Your task to perform on an android device: turn on location history Image 0: 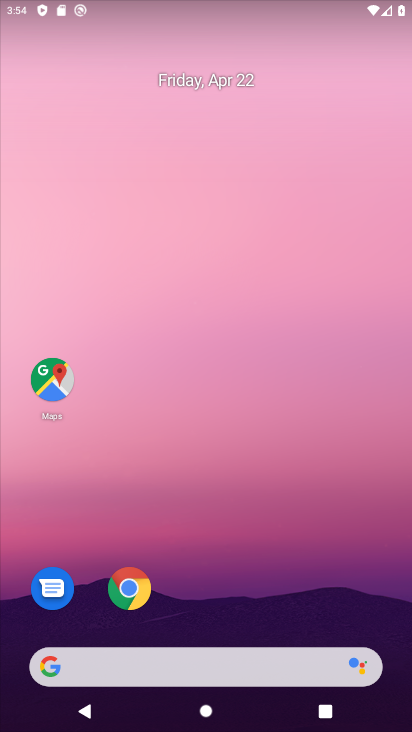
Step 0: drag from (214, 637) to (177, 70)
Your task to perform on an android device: turn on location history Image 1: 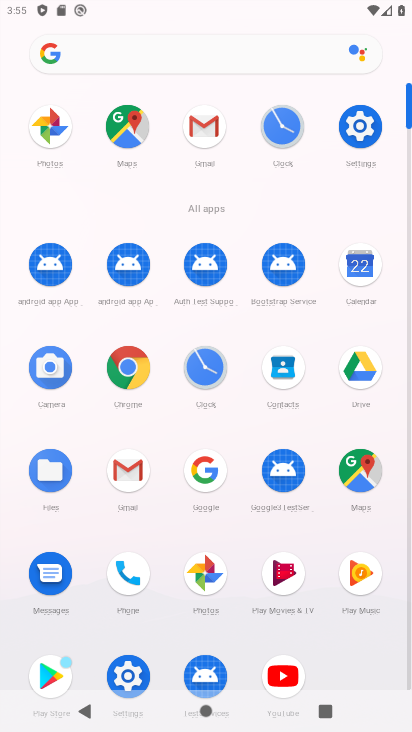
Step 1: click (353, 133)
Your task to perform on an android device: turn on location history Image 2: 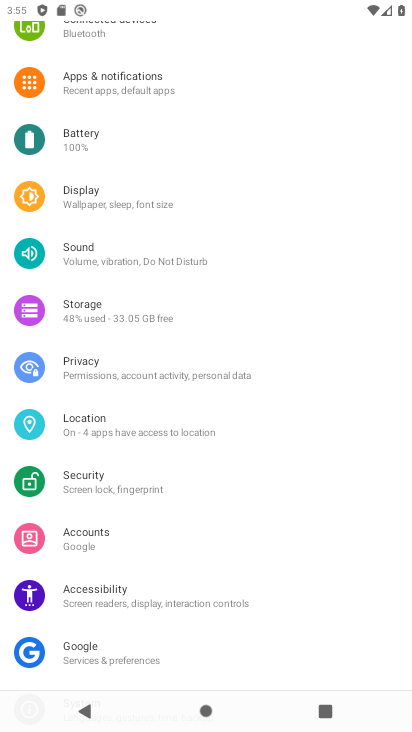
Step 2: click (94, 430)
Your task to perform on an android device: turn on location history Image 3: 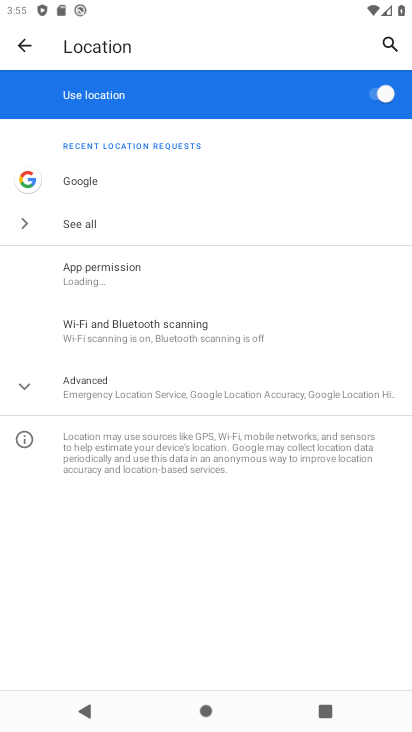
Step 3: task complete